Your task to perform on an android device: Do I have any events this weekend? Image 0: 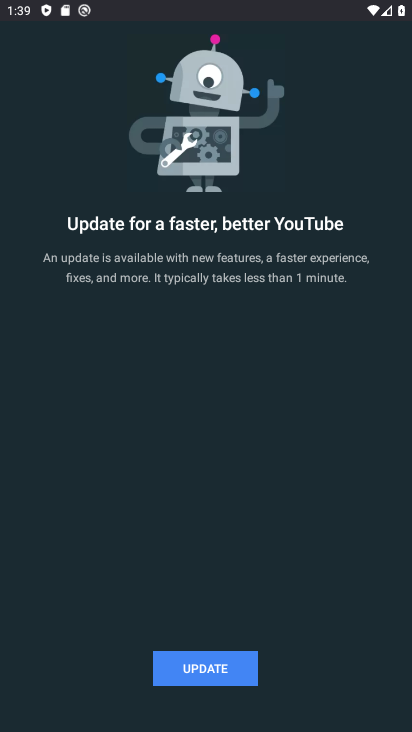
Step 0: press home button
Your task to perform on an android device: Do I have any events this weekend? Image 1: 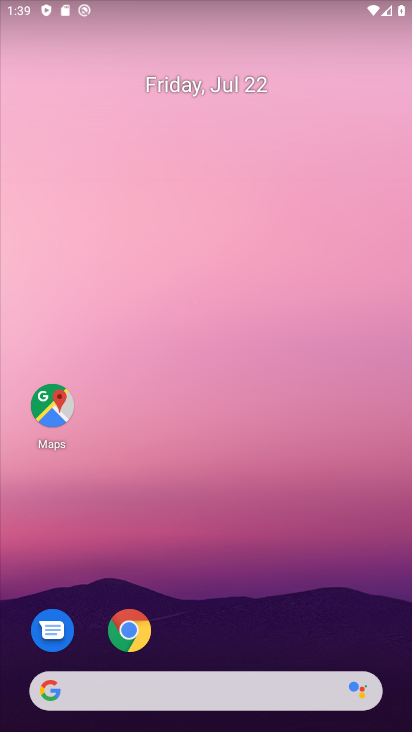
Step 1: drag from (176, 635) to (209, 132)
Your task to perform on an android device: Do I have any events this weekend? Image 2: 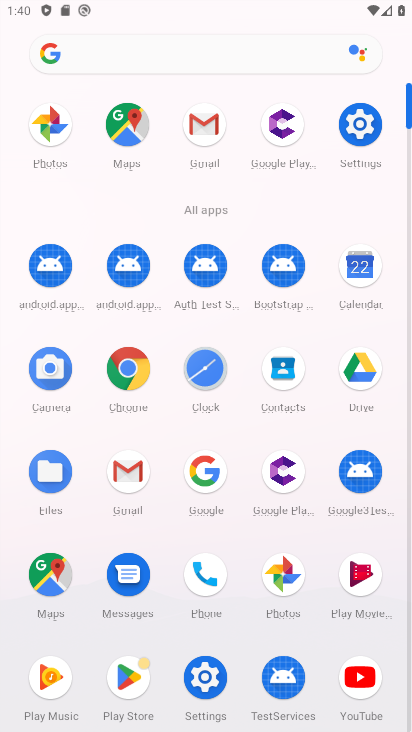
Step 2: click (362, 267)
Your task to perform on an android device: Do I have any events this weekend? Image 3: 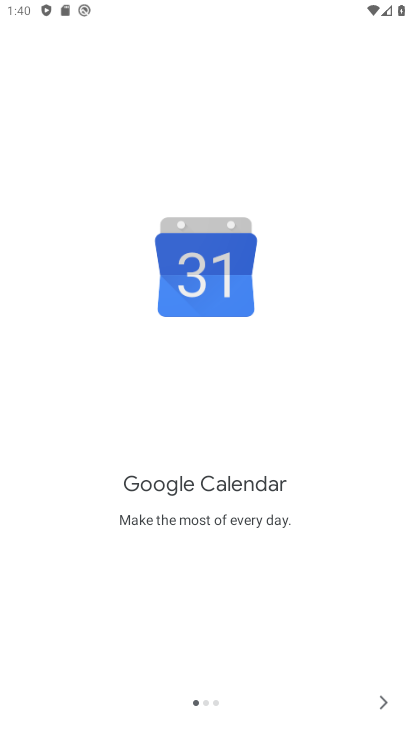
Step 3: click (374, 703)
Your task to perform on an android device: Do I have any events this weekend? Image 4: 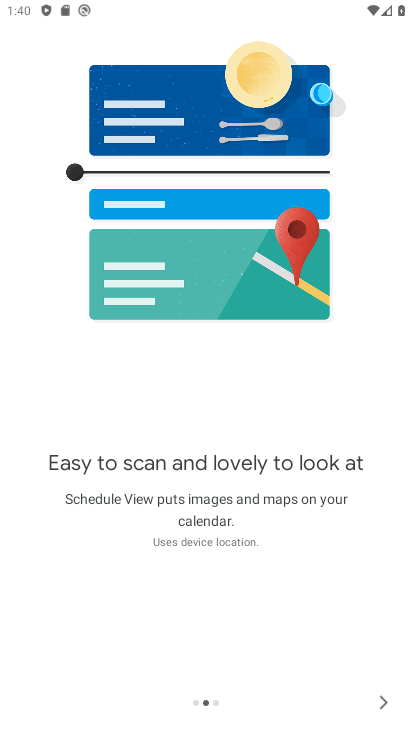
Step 4: click (375, 703)
Your task to perform on an android device: Do I have any events this weekend? Image 5: 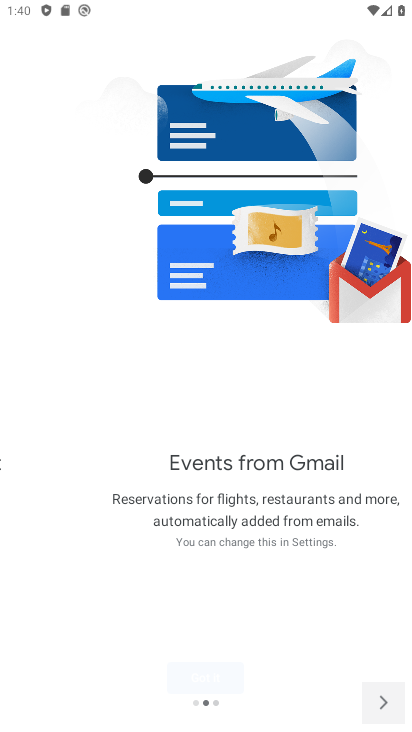
Step 5: click (375, 703)
Your task to perform on an android device: Do I have any events this weekend? Image 6: 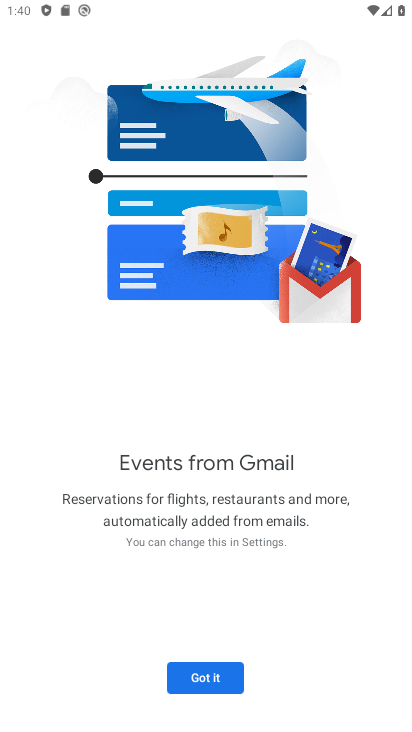
Step 6: click (201, 676)
Your task to perform on an android device: Do I have any events this weekend? Image 7: 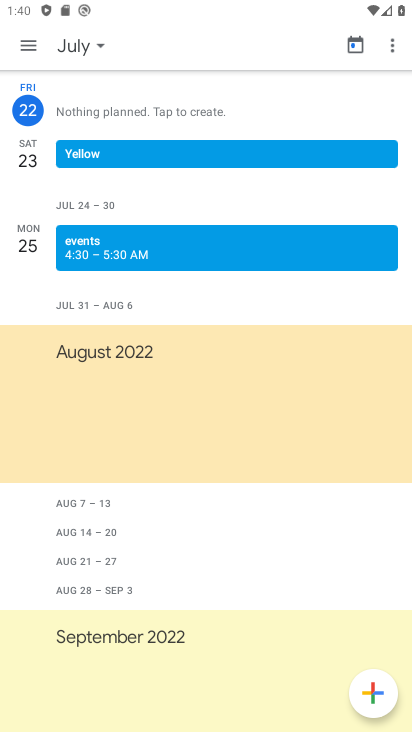
Step 7: click (98, 49)
Your task to perform on an android device: Do I have any events this weekend? Image 8: 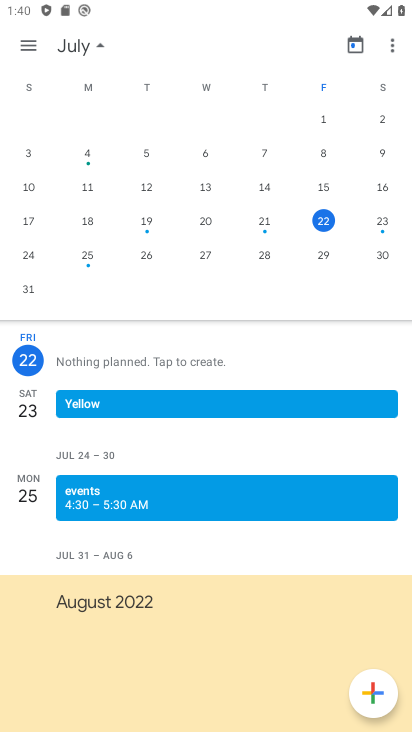
Step 8: click (206, 256)
Your task to perform on an android device: Do I have any events this weekend? Image 9: 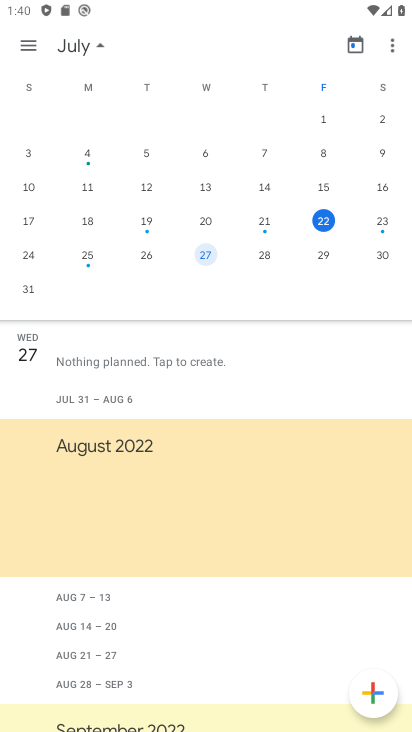
Step 9: task complete